Your task to perform on an android device: refresh tabs in the chrome app Image 0: 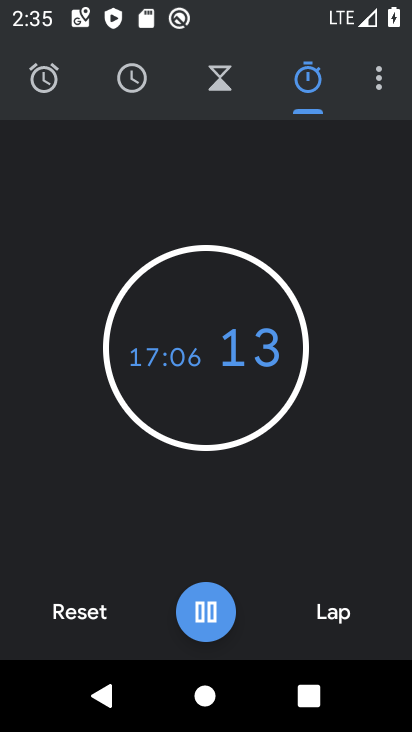
Step 0: press home button
Your task to perform on an android device: refresh tabs in the chrome app Image 1: 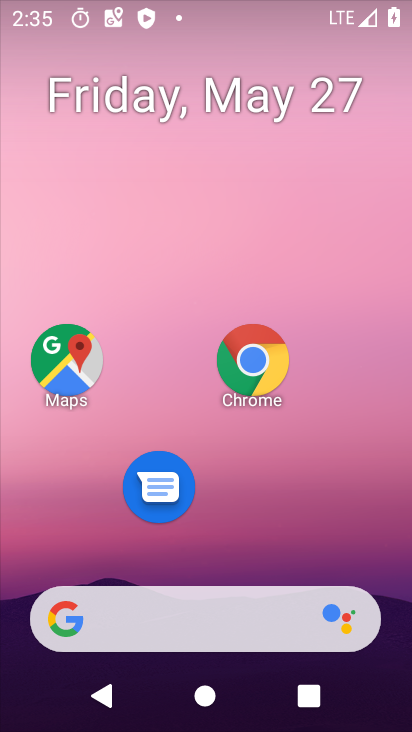
Step 1: click (256, 357)
Your task to perform on an android device: refresh tabs in the chrome app Image 2: 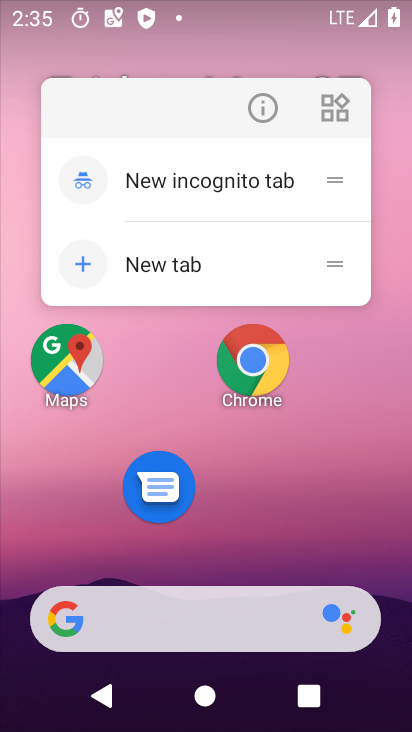
Step 2: click (256, 357)
Your task to perform on an android device: refresh tabs in the chrome app Image 3: 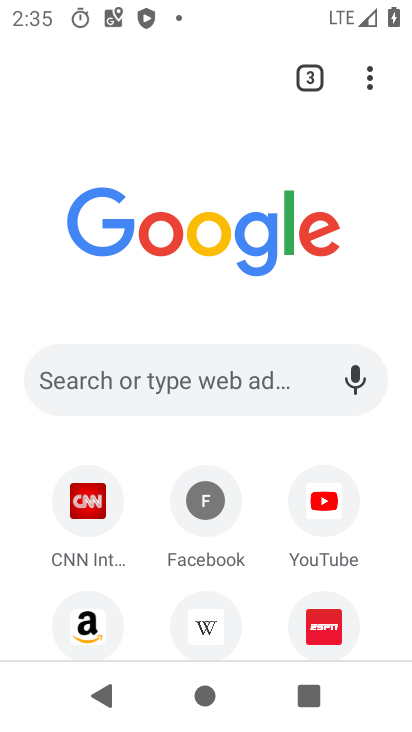
Step 3: click (359, 84)
Your task to perform on an android device: refresh tabs in the chrome app Image 4: 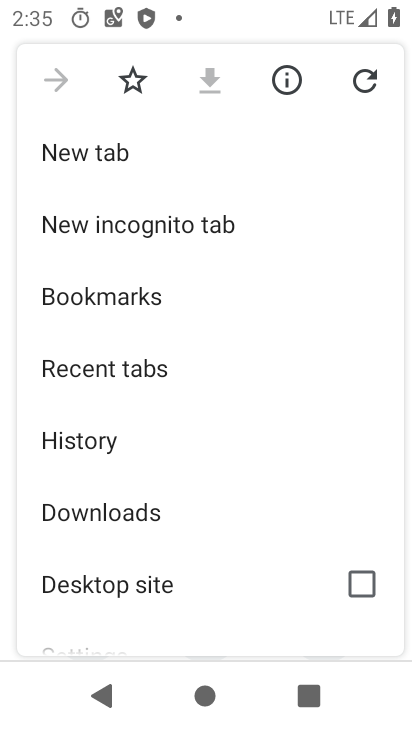
Step 4: click (361, 77)
Your task to perform on an android device: refresh tabs in the chrome app Image 5: 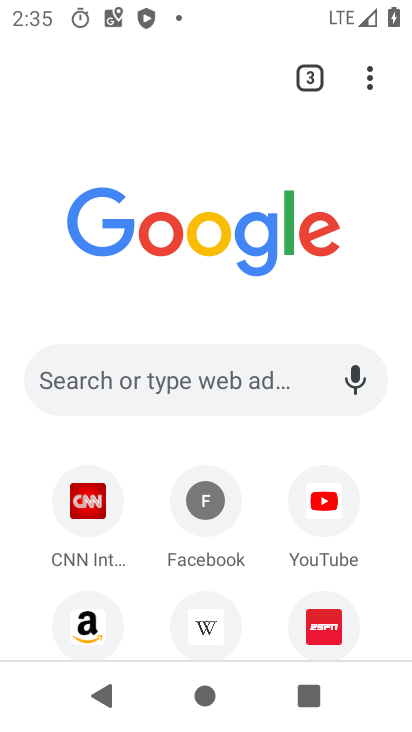
Step 5: click (368, 73)
Your task to perform on an android device: refresh tabs in the chrome app Image 6: 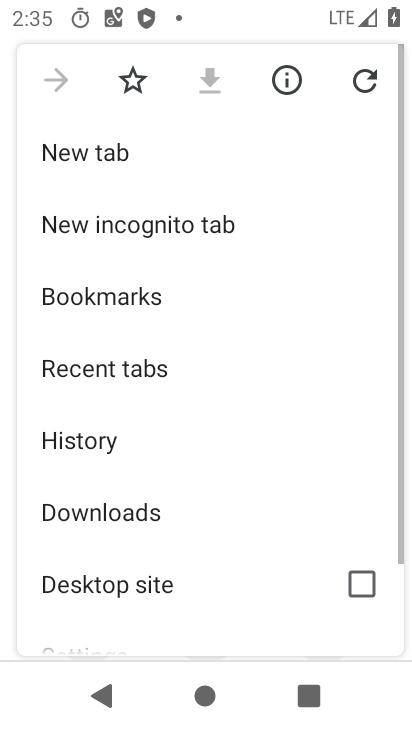
Step 6: click (368, 73)
Your task to perform on an android device: refresh tabs in the chrome app Image 7: 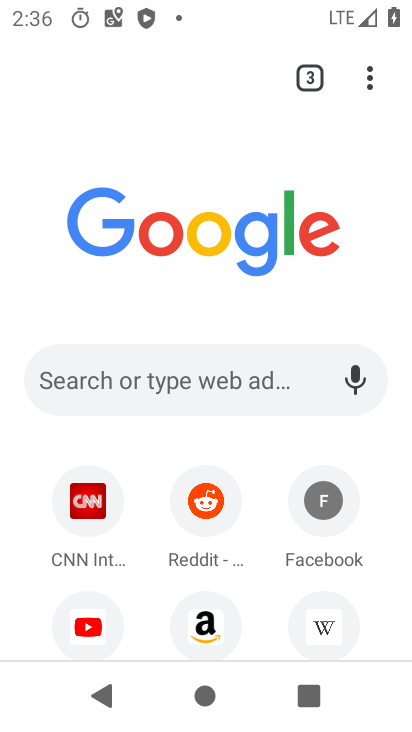
Step 7: task complete